Your task to perform on an android device: Do I have any events tomorrow? Image 0: 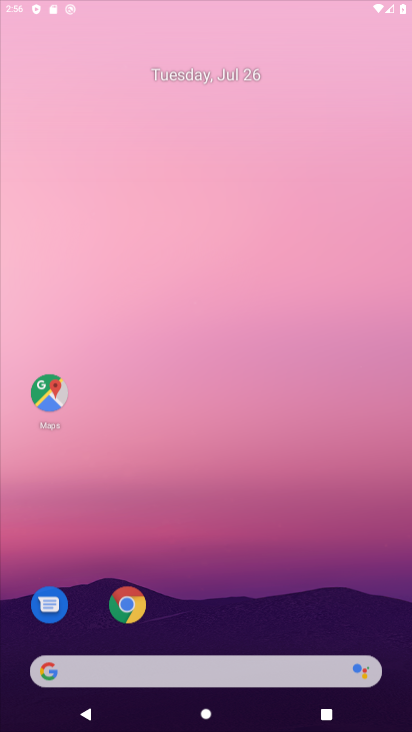
Step 0: click (125, 610)
Your task to perform on an android device: Do I have any events tomorrow? Image 1: 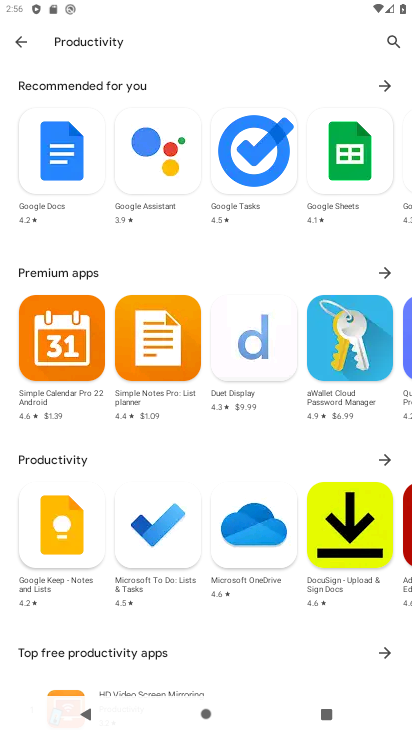
Step 1: press home button
Your task to perform on an android device: Do I have any events tomorrow? Image 2: 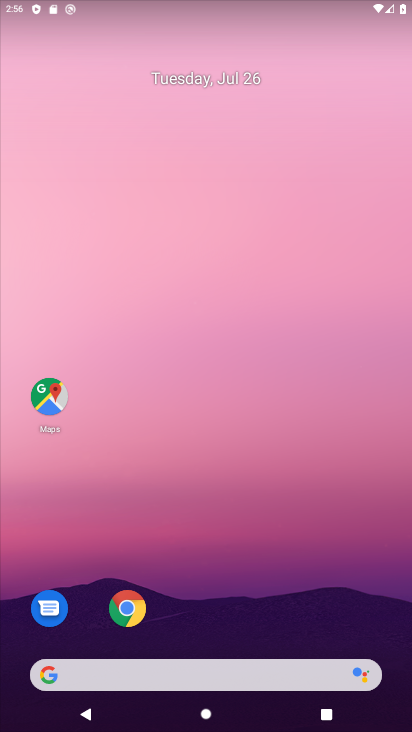
Step 2: drag from (185, 635) to (193, 16)
Your task to perform on an android device: Do I have any events tomorrow? Image 3: 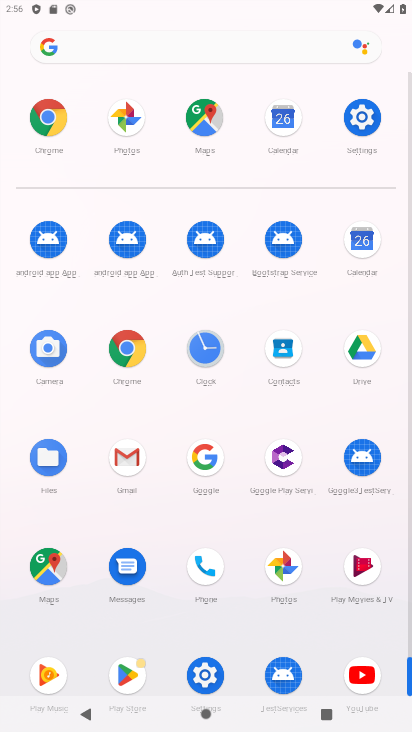
Step 3: click (367, 254)
Your task to perform on an android device: Do I have any events tomorrow? Image 4: 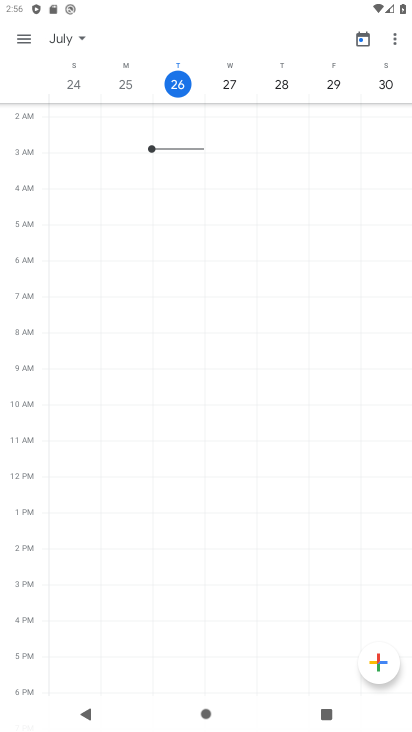
Step 4: click (21, 35)
Your task to perform on an android device: Do I have any events tomorrow? Image 5: 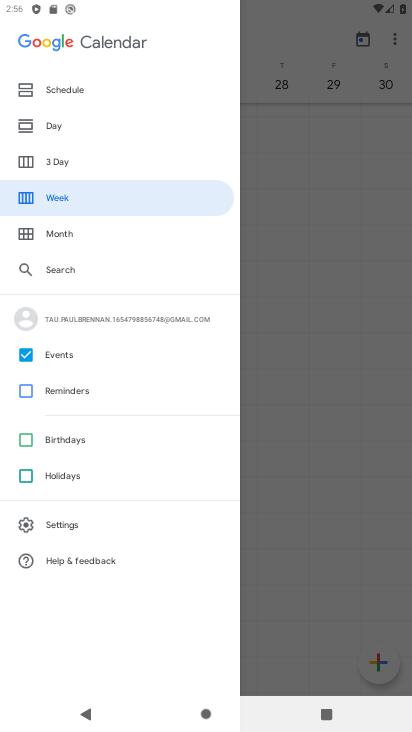
Step 5: click (63, 159)
Your task to perform on an android device: Do I have any events tomorrow? Image 6: 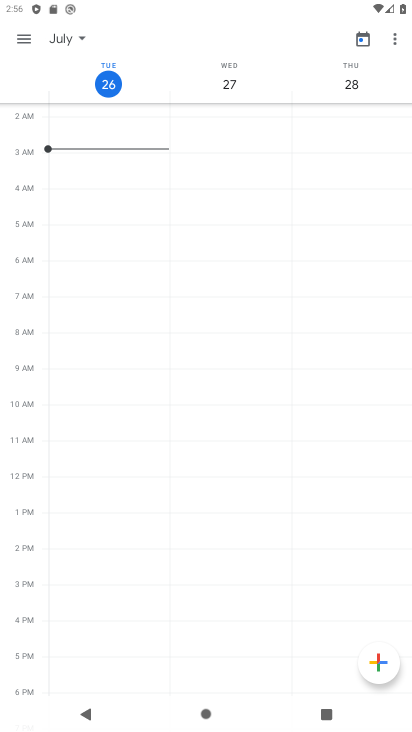
Step 6: click (239, 87)
Your task to perform on an android device: Do I have any events tomorrow? Image 7: 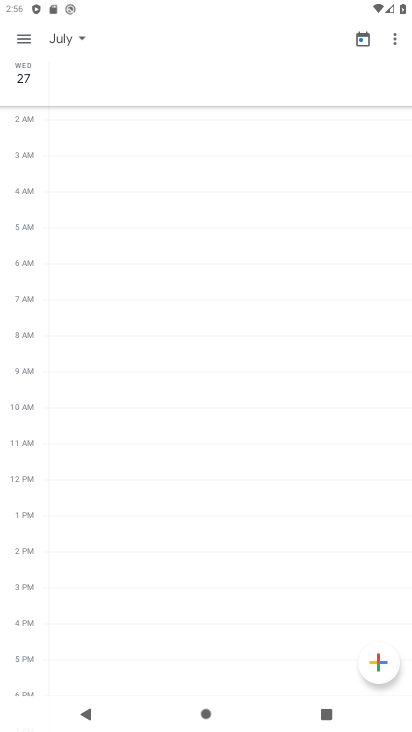
Step 7: task complete